Your task to perform on an android device: turn on javascript in the chrome app Image 0: 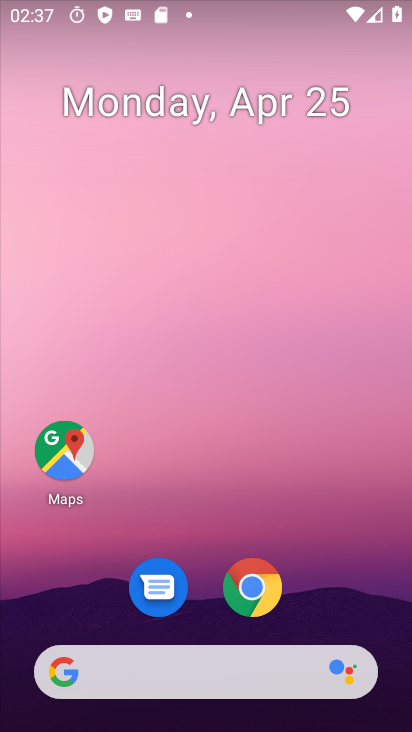
Step 0: drag from (315, 397) to (340, 96)
Your task to perform on an android device: turn on javascript in the chrome app Image 1: 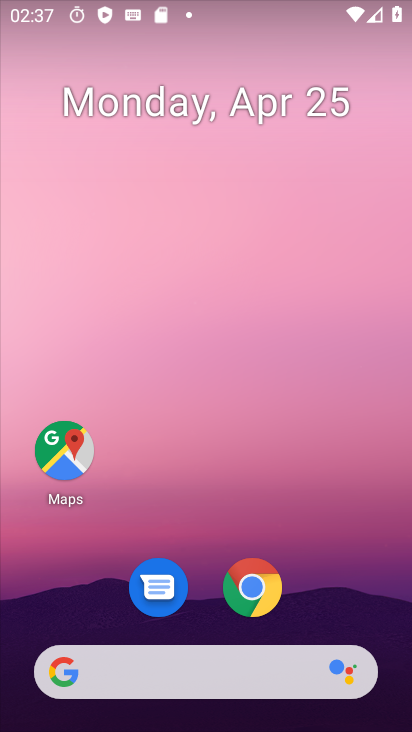
Step 1: drag from (355, 510) to (336, 0)
Your task to perform on an android device: turn on javascript in the chrome app Image 2: 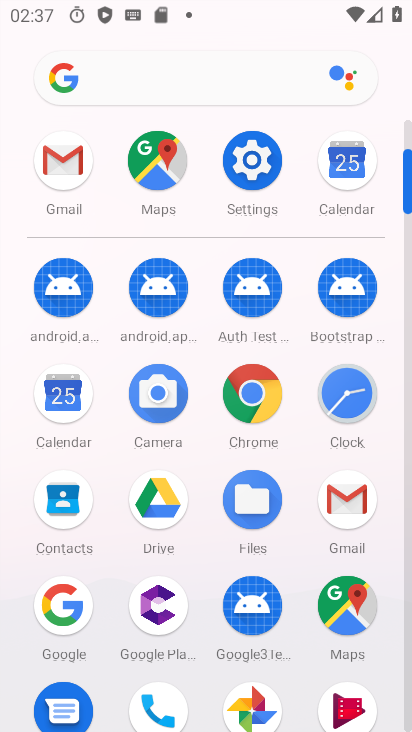
Step 2: click (259, 400)
Your task to perform on an android device: turn on javascript in the chrome app Image 3: 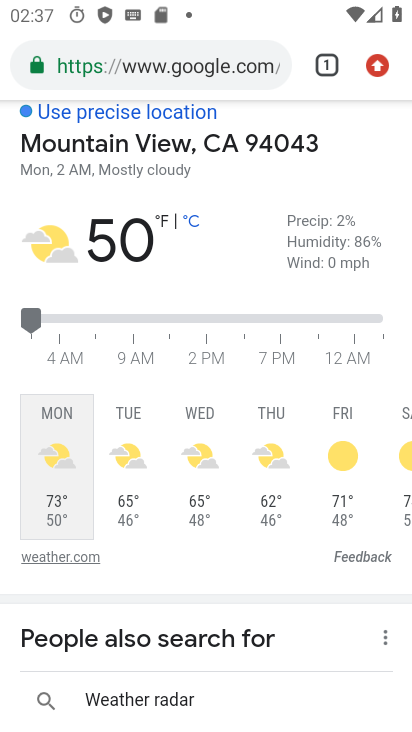
Step 3: drag from (401, 53) to (215, 633)
Your task to perform on an android device: turn on javascript in the chrome app Image 4: 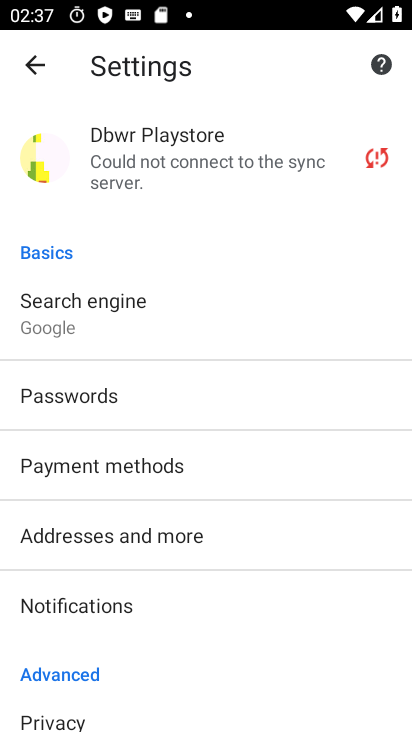
Step 4: drag from (301, 644) to (230, 106)
Your task to perform on an android device: turn on javascript in the chrome app Image 5: 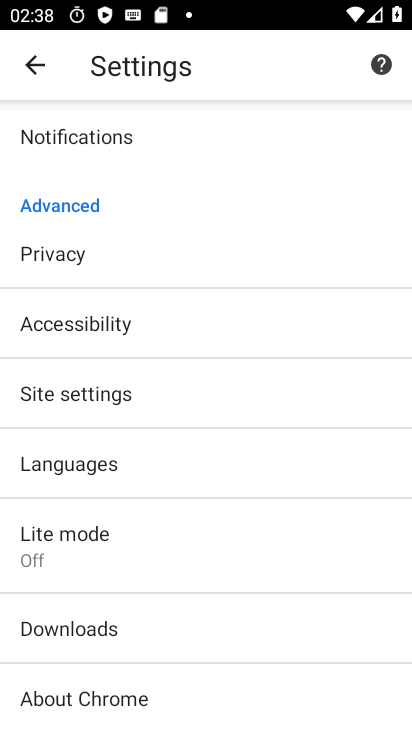
Step 5: click (106, 387)
Your task to perform on an android device: turn on javascript in the chrome app Image 6: 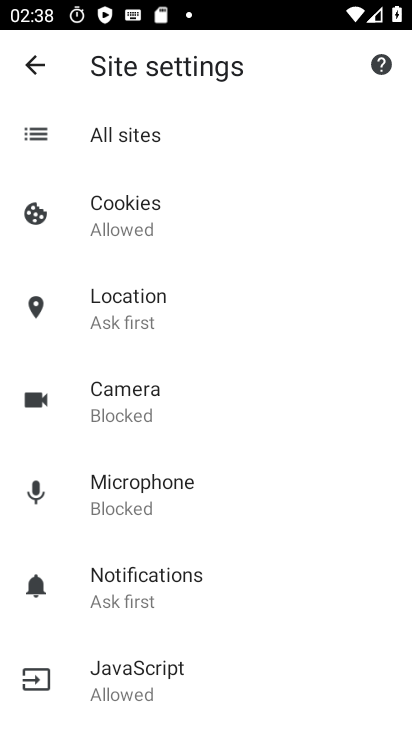
Step 6: click (150, 674)
Your task to perform on an android device: turn on javascript in the chrome app Image 7: 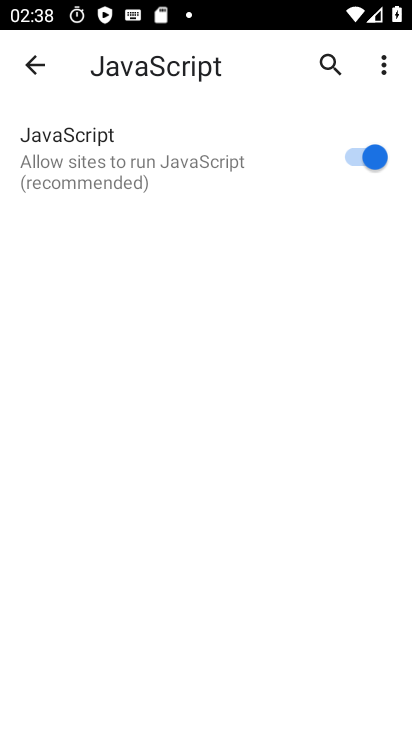
Step 7: task complete